Your task to perform on an android device: turn on airplane mode Image 0: 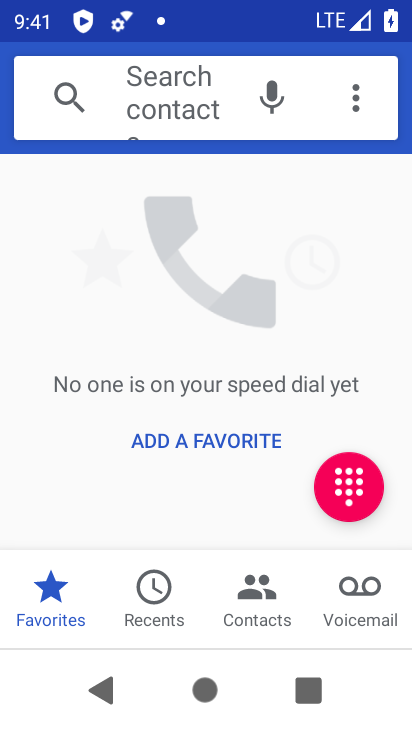
Step 0: press home button
Your task to perform on an android device: turn on airplane mode Image 1: 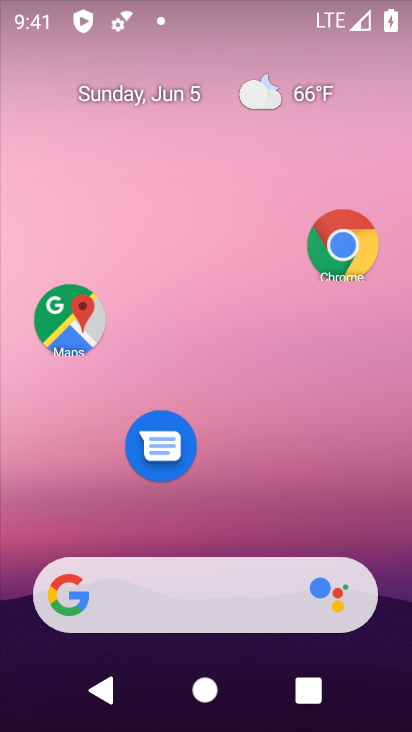
Step 1: drag from (212, 533) to (190, 163)
Your task to perform on an android device: turn on airplane mode Image 2: 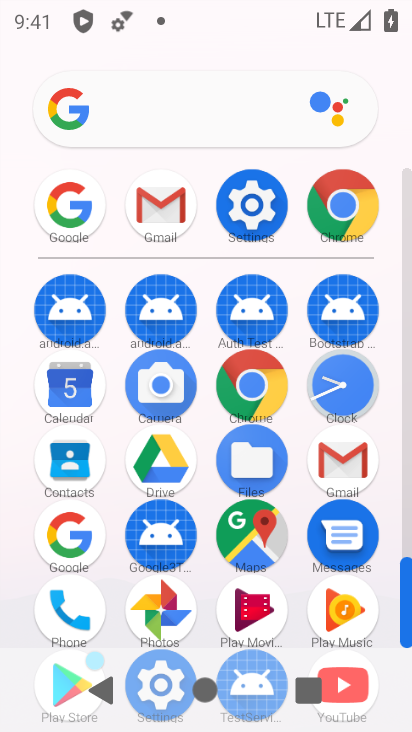
Step 2: click (247, 210)
Your task to perform on an android device: turn on airplane mode Image 3: 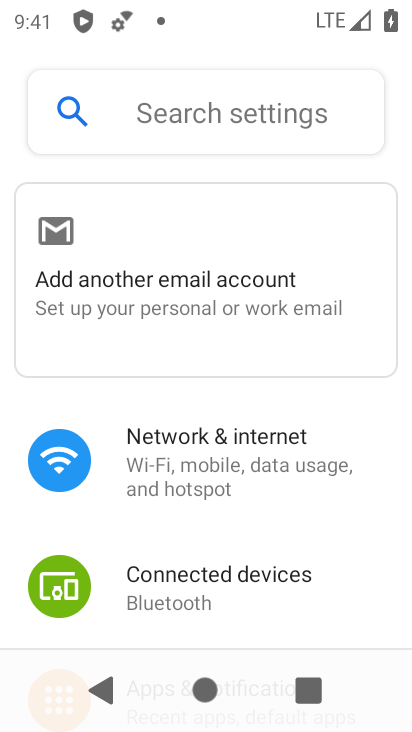
Step 3: click (239, 433)
Your task to perform on an android device: turn on airplane mode Image 4: 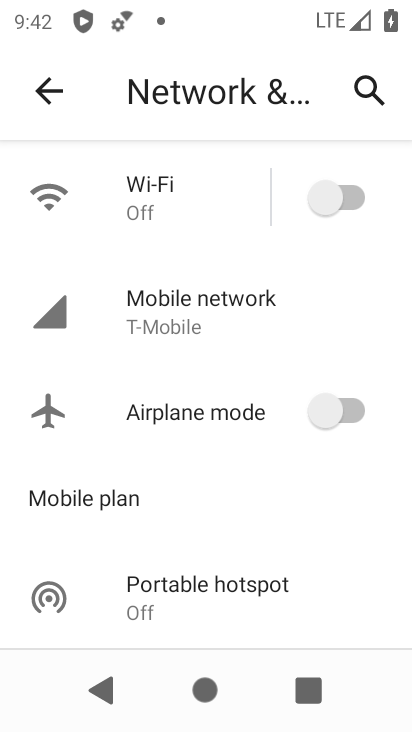
Step 4: click (346, 403)
Your task to perform on an android device: turn on airplane mode Image 5: 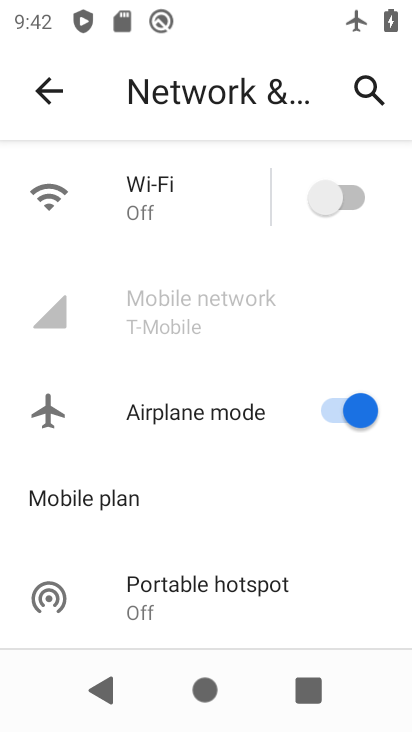
Step 5: task complete